Your task to perform on an android device: empty trash in google photos Image 0: 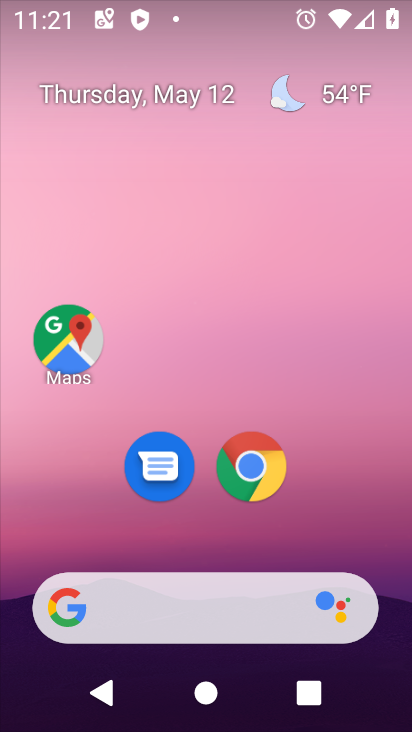
Step 0: drag from (334, 543) to (348, 230)
Your task to perform on an android device: empty trash in google photos Image 1: 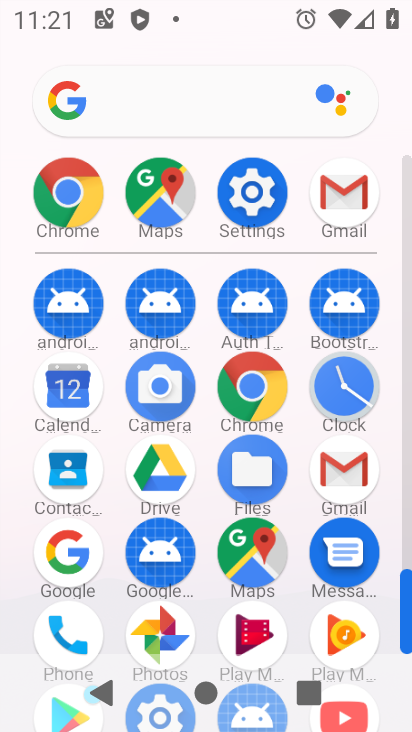
Step 1: click (167, 645)
Your task to perform on an android device: empty trash in google photos Image 2: 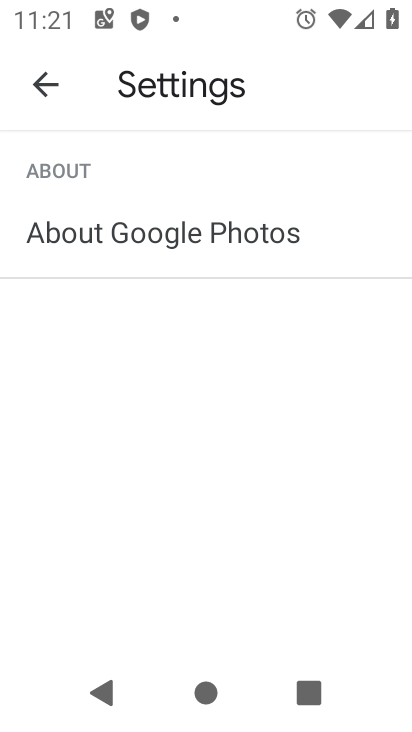
Step 2: click (57, 91)
Your task to perform on an android device: empty trash in google photos Image 3: 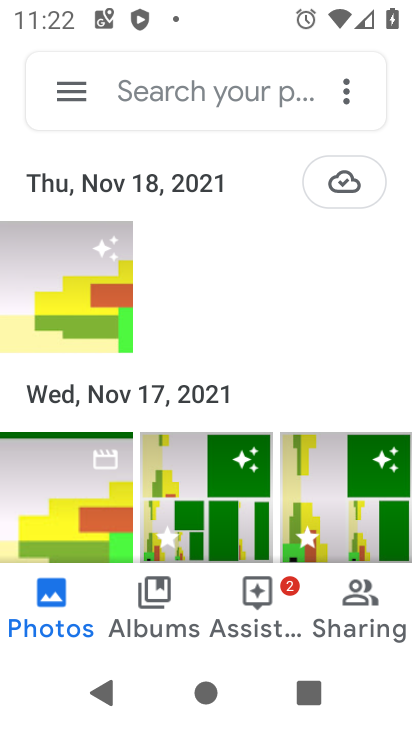
Step 3: click (63, 82)
Your task to perform on an android device: empty trash in google photos Image 4: 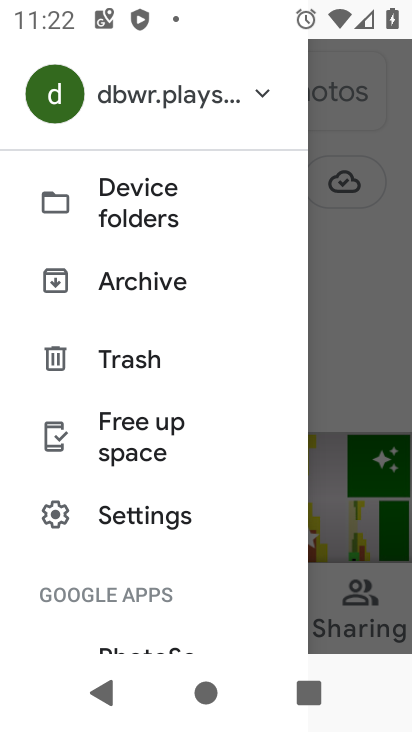
Step 4: click (150, 368)
Your task to perform on an android device: empty trash in google photos Image 5: 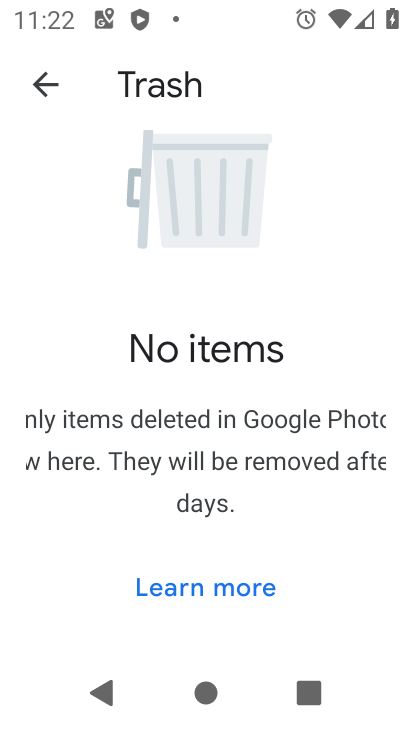
Step 5: task complete